Your task to perform on an android device: turn on wifi Image 0: 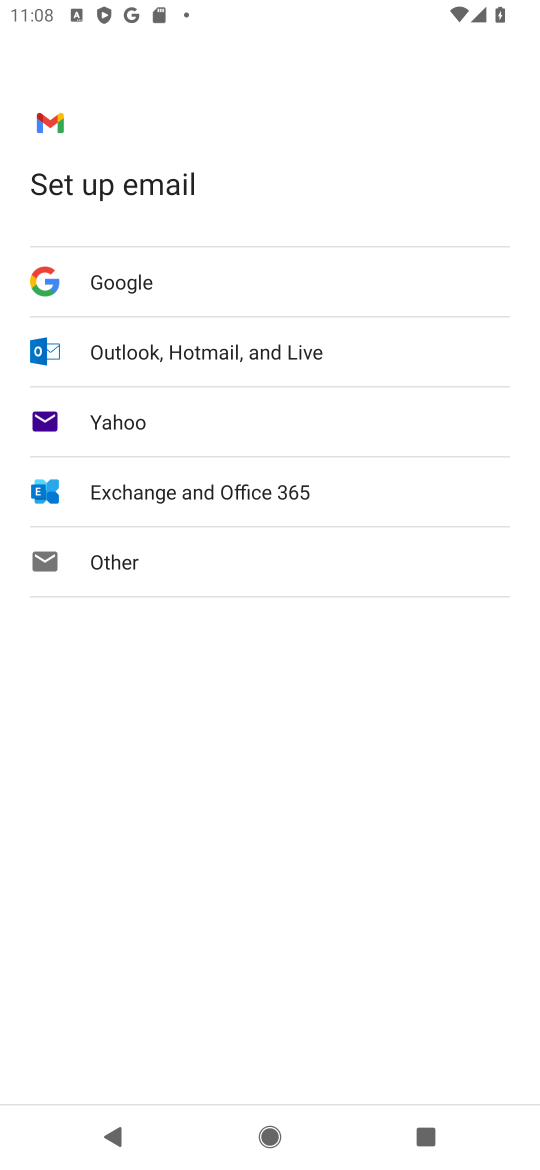
Step 0: task complete